Your task to perform on an android device: Go to ESPN.com Image 0: 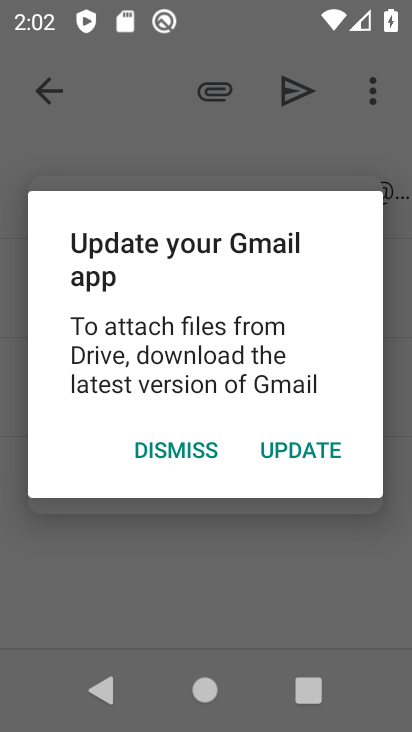
Step 0: type " ESPN.com"
Your task to perform on an android device: Go to ESPN.com Image 1: 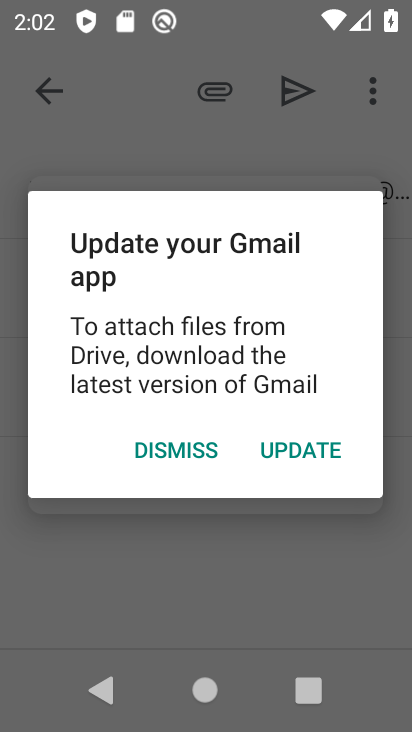
Step 1: click (198, 451)
Your task to perform on an android device: Go to ESPN.com Image 2: 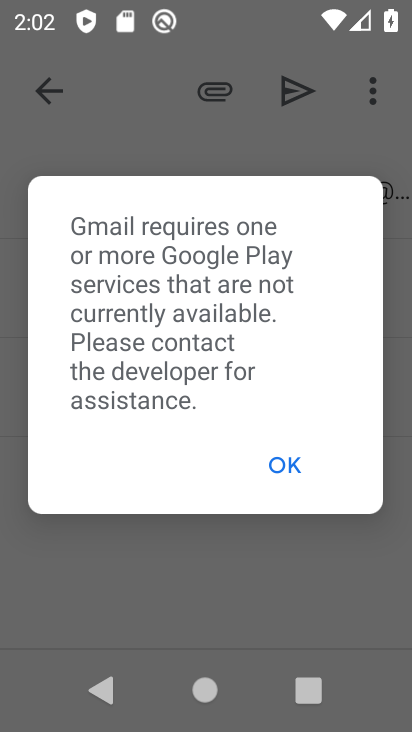
Step 2: press home button
Your task to perform on an android device: Go to ESPN.com Image 3: 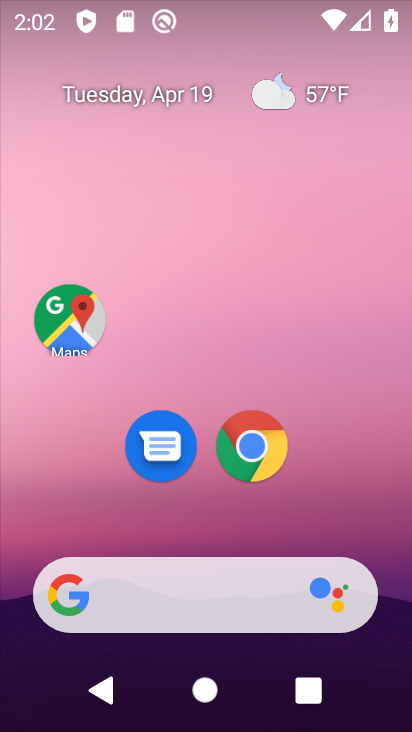
Step 3: click (241, 452)
Your task to perform on an android device: Go to ESPN.com Image 4: 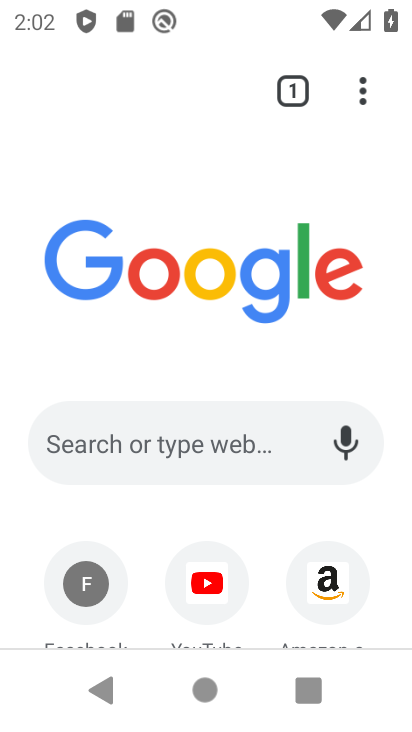
Step 4: click (243, 449)
Your task to perform on an android device: Go to ESPN.com Image 5: 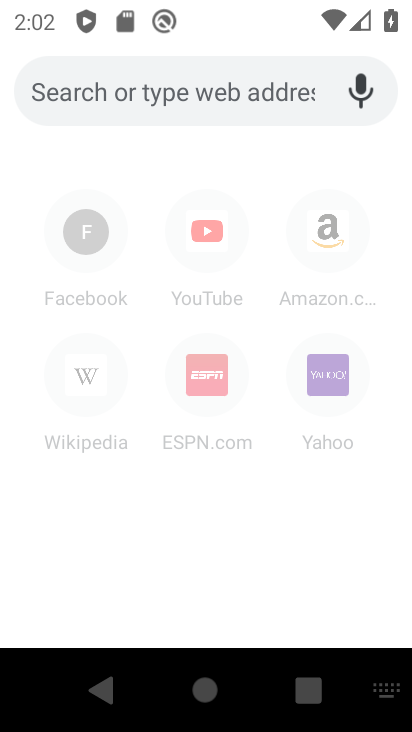
Step 5: type " ESPN.com"
Your task to perform on an android device: Go to ESPN.com Image 6: 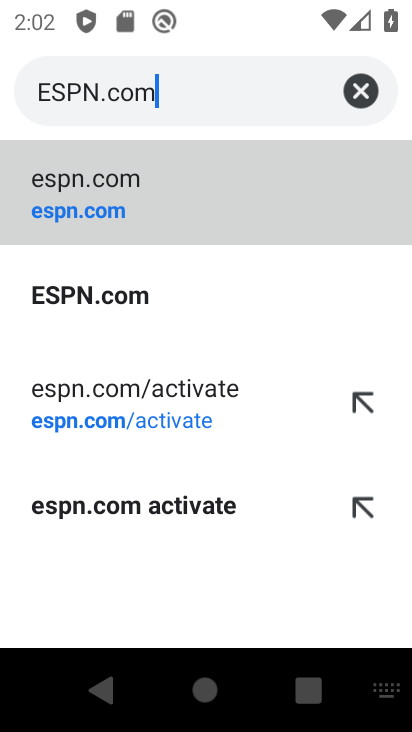
Step 6: click (64, 307)
Your task to perform on an android device: Go to ESPN.com Image 7: 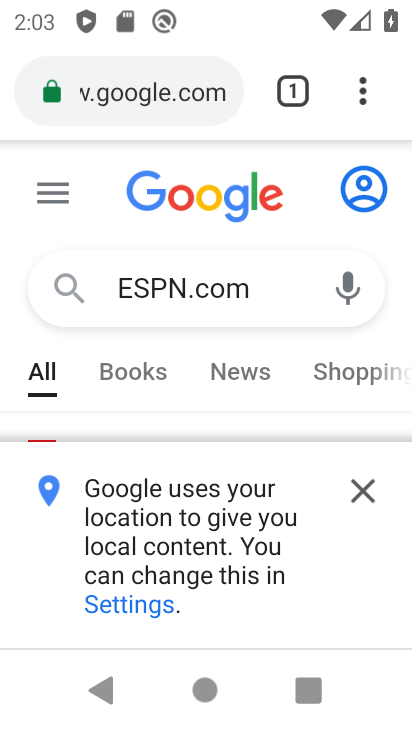
Step 7: click (367, 499)
Your task to perform on an android device: Go to ESPN.com Image 8: 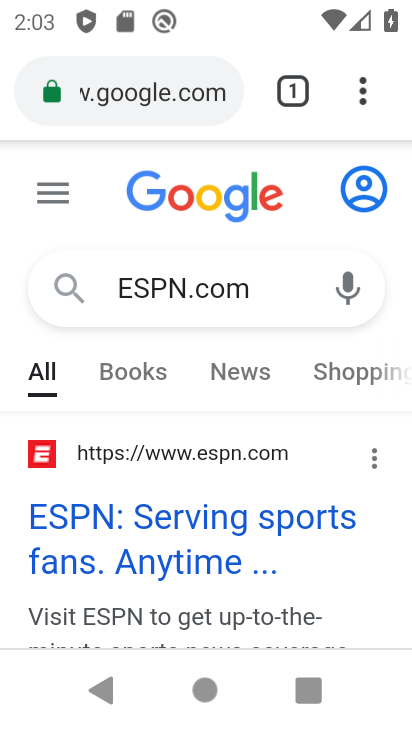
Step 8: task complete